Your task to perform on an android device: turn pop-ups off in chrome Image 0: 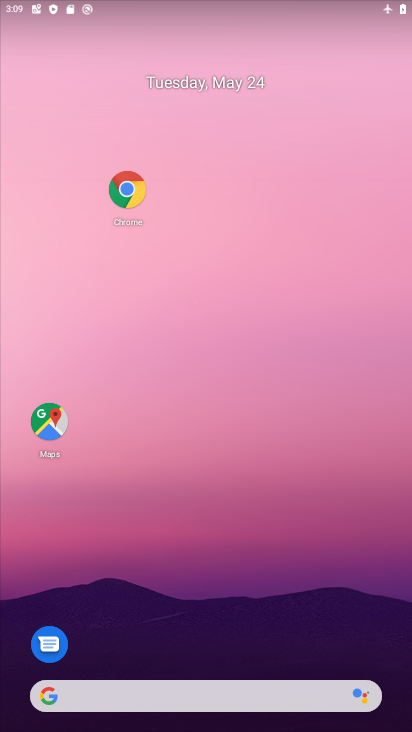
Step 0: drag from (247, 549) to (261, 136)
Your task to perform on an android device: turn pop-ups off in chrome Image 1: 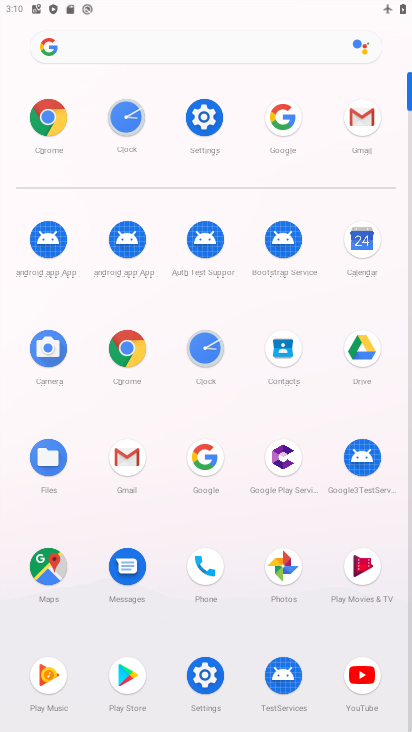
Step 1: click (51, 115)
Your task to perform on an android device: turn pop-ups off in chrome Image 2: 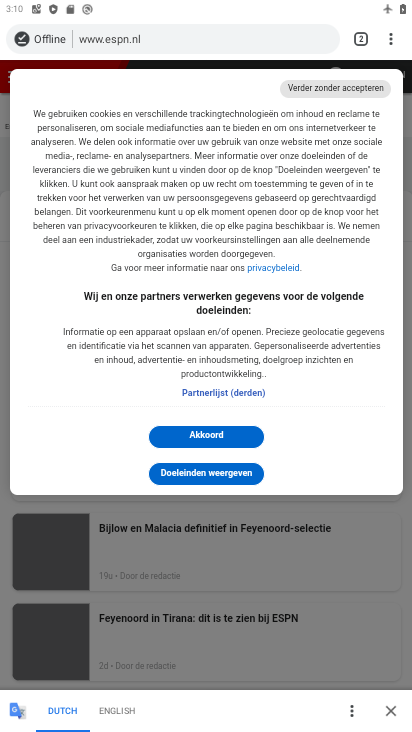
Step 2: click (383, 40)
Your task to perform on an android device: turn pop-ups off in chrome Image 3: 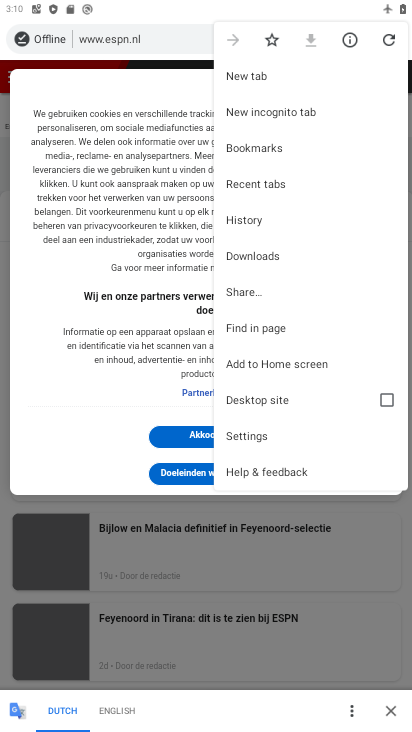
Step 3: click (281, 436)
Your task to perform on an android device: turn pop-ups off in chrome Image 4: 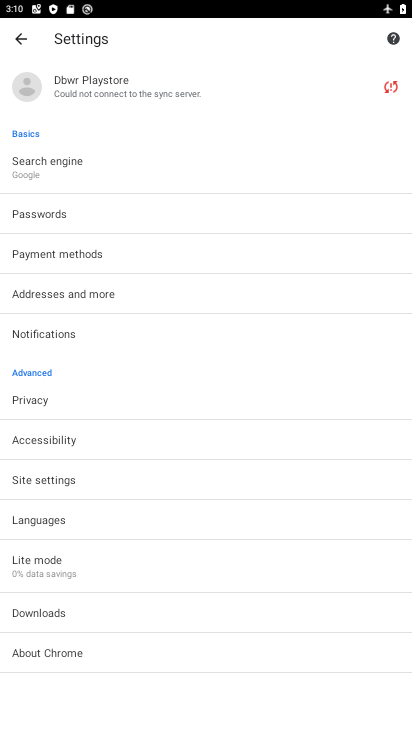
Step 4: click (66, 485)
Your task to perform on an android device: turn pop-ups off in chrome Image 5: 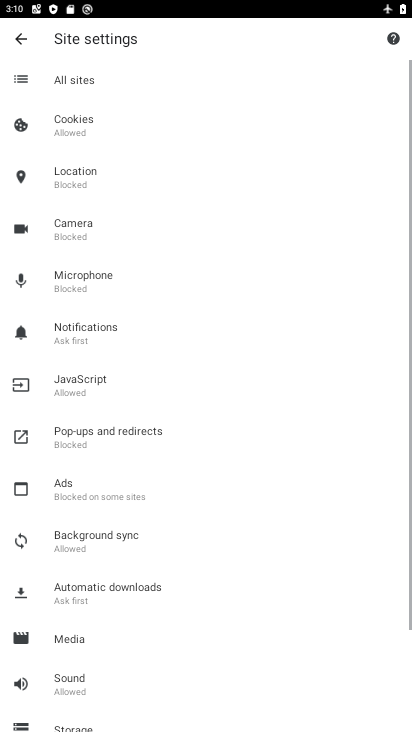
Step 5: click (142, 432)
Your task to perform on an android device: turn pop-ups off in chrome Image 6: 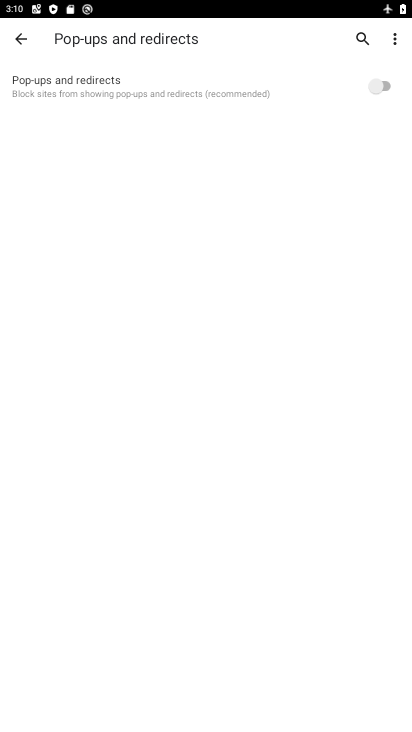
Step 6: task complete